Your task to perform on an android device: What is the news today? Image 0: 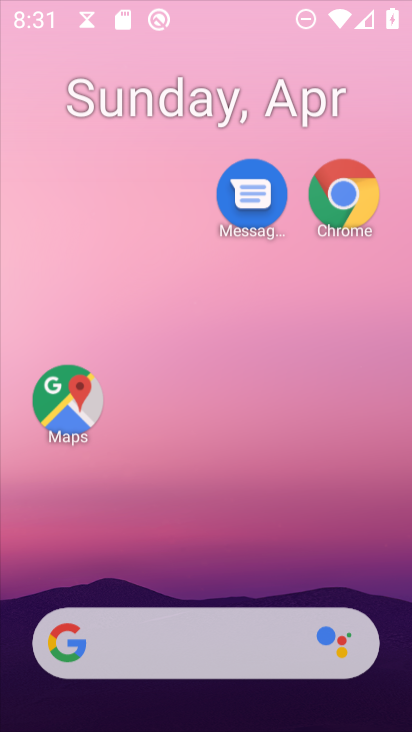
Step 0: press home button
Your task to perform on an android device: What is the news today? Image 1: 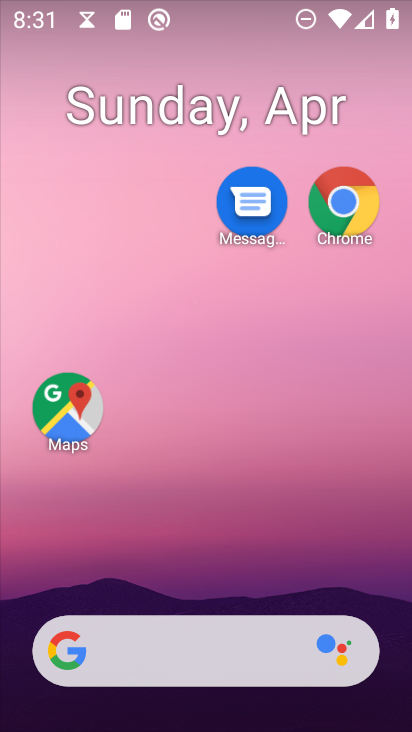
Step 1: drag from (167, 654) to (271, 163)
Your task to perform on an android device: What is the news today? Image 2: 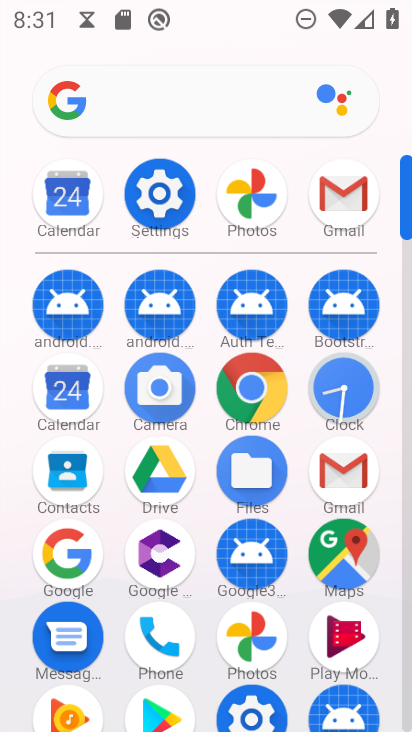
Step 2: click (84, 567)
Your task to perform on an android device: What is the news today? Image 3: 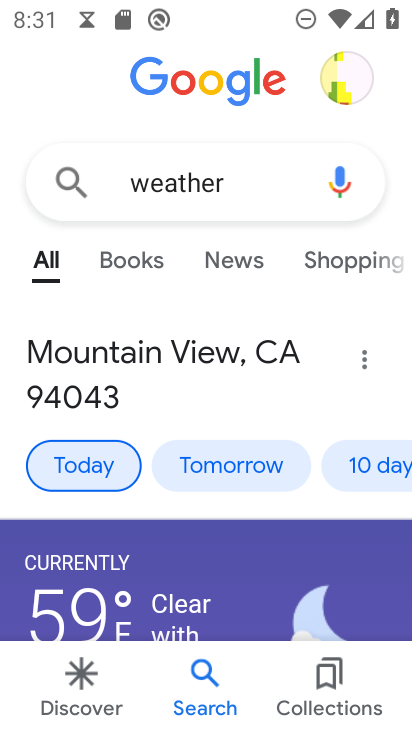
Step 3: click (235, 186)
Your task to perform on an android device: What is the news today? Image 4: 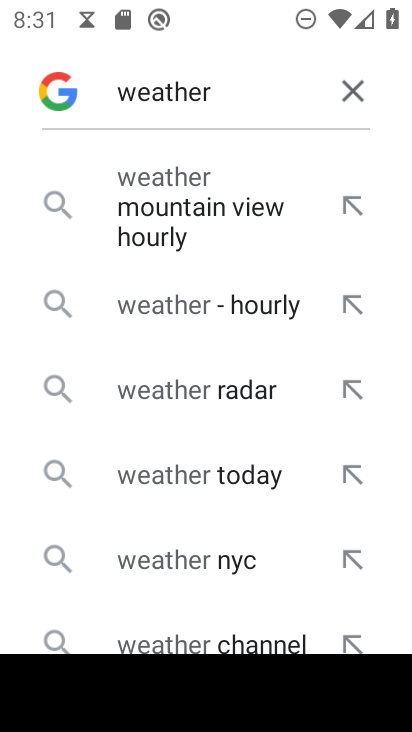
Step 4: click (354, 90)
Your task to perform on an android device: What is the news today? Image 5: 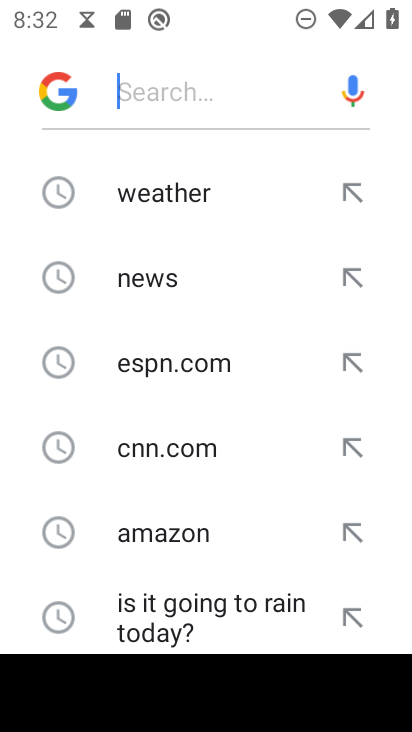
Step 5: drag from (222, 572) to (282, 239)
Your task to perform on an android device: What is the news today? Image 6: 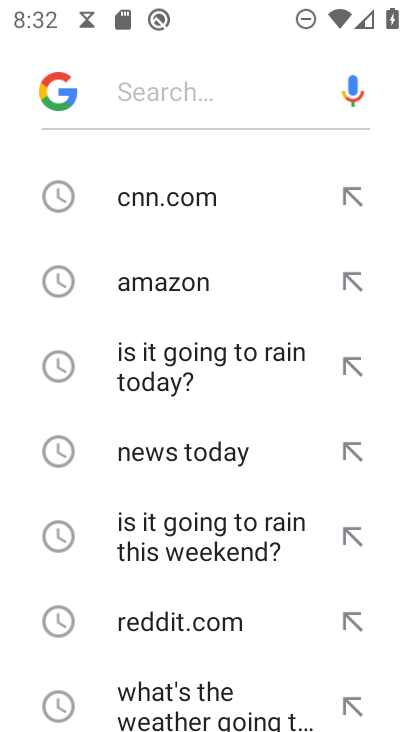
Step 6: click (211, 452)
Your task to perform on an android device: What is the news today? Image 7: 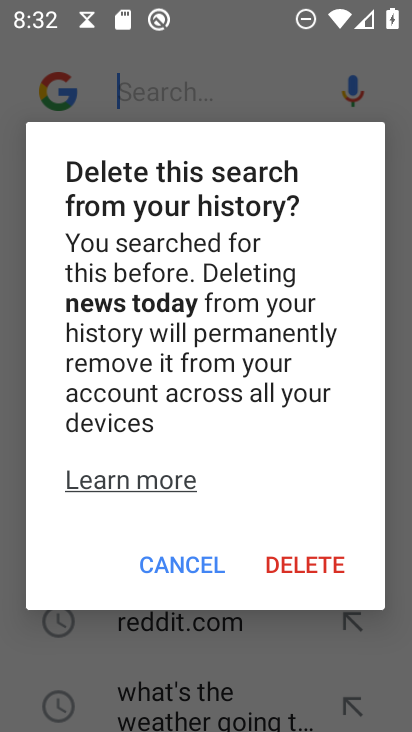
Step 7: click (199, 558)
Your task to perform on an android device: What is the news today? Image 8: 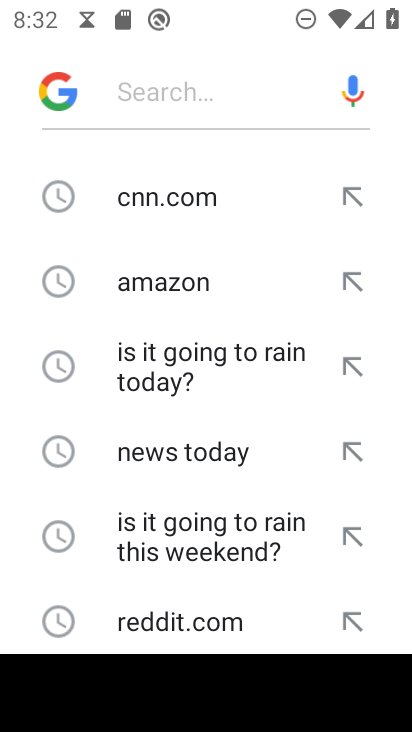
Step 8: click (160, 451)
Your task to perform on an android device: What is the news today? Image 9: 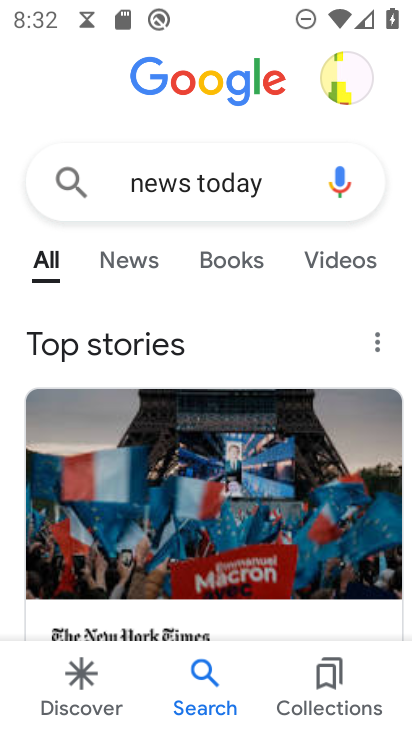
Step 9: task complete